Your task to perform on an android device: What is the recent news? Image 0: 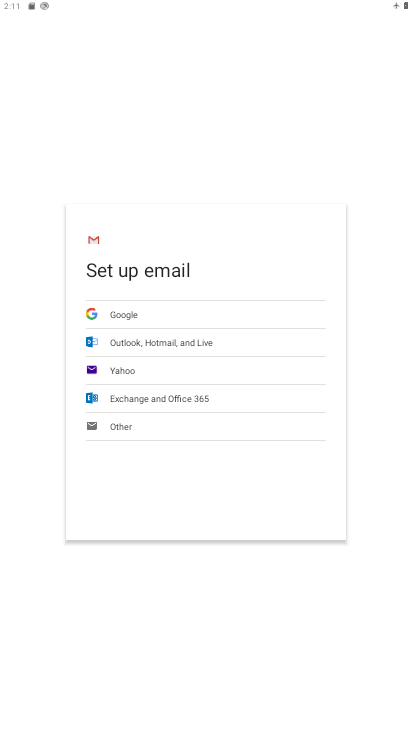
Step 0: press home button
Your task to perform on an android device: What is the recent news? Image 1: 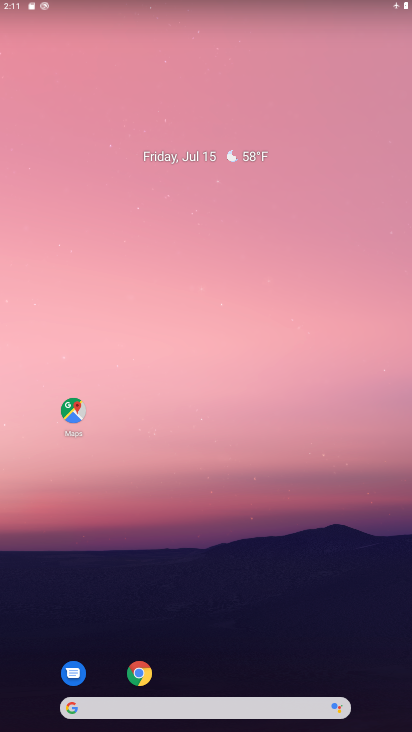
Step 1: task complete